Your task to perform on an android device: choose inbox layout in the gmail app Image 0: 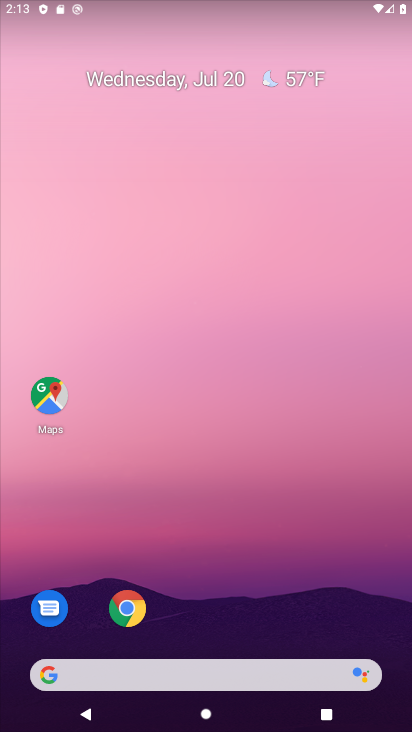
Step 0: drag from (221, 636) to (411, 6)
Your task to perform on an android device: choose inbox layout in the gmail app Image 1: 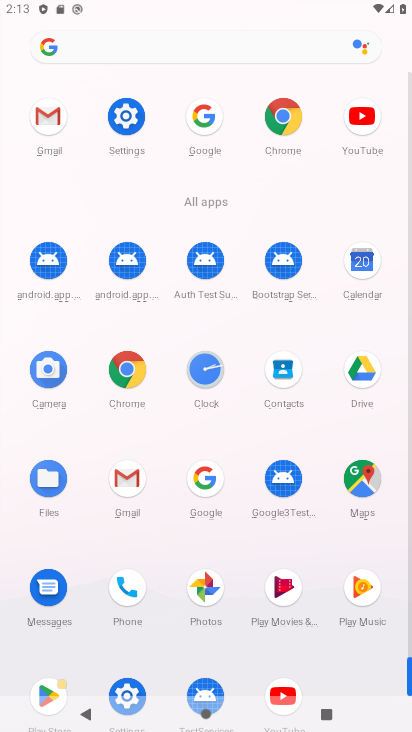
Step 1: click (128, 478)
Your task to perform on an android device: choose inbox layout in the gmail app Image 2: 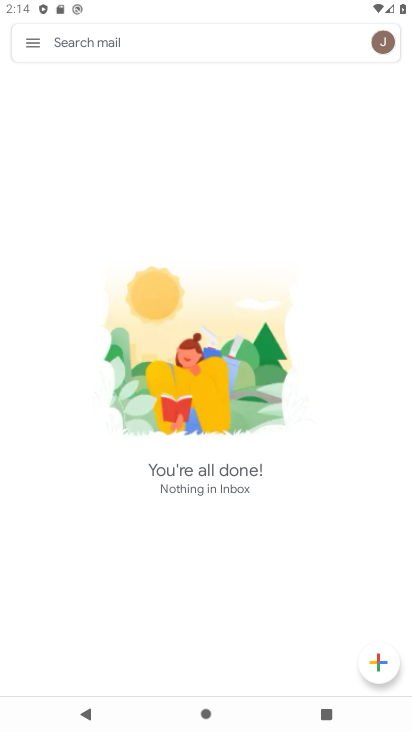
Step 2: click (29, 38)
Your task to perform on an android device: choose inbox layout in the gmail app Image 3: 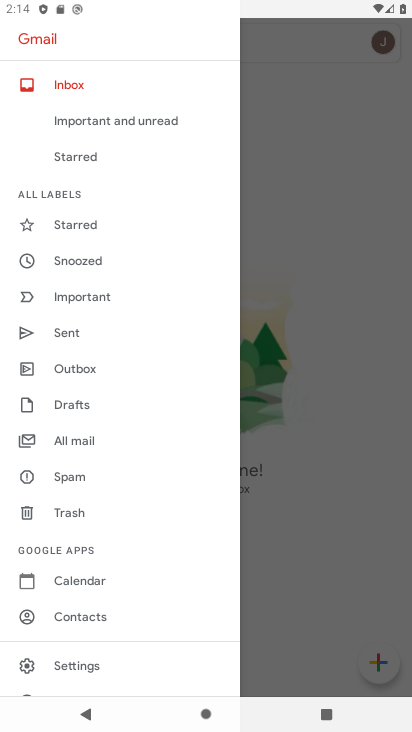
Step 3: drag from (127, 546) to (138, 27)
Your task to perform on an android device: choose inbox layout in the gmail app Image 4: 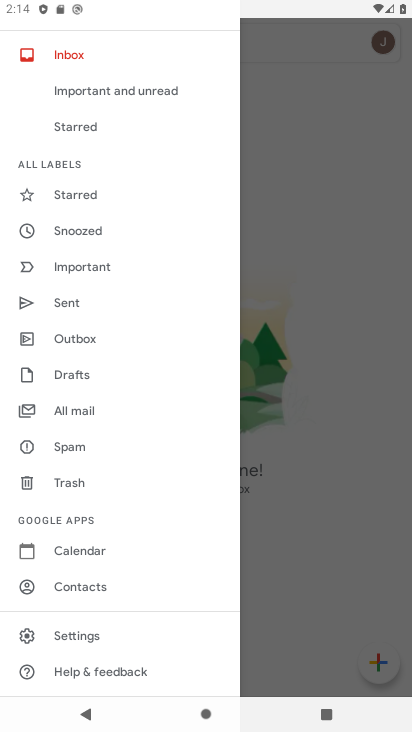
Step 4: click (104, 635)
Your task to perform on an android device: choose inbox layout in the gmail app Image 5: 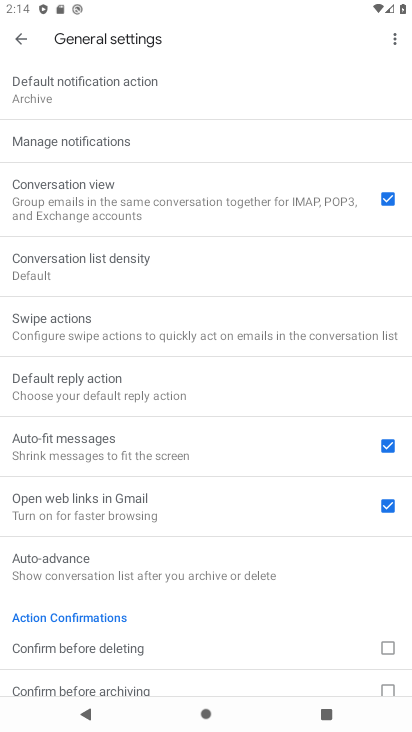
Step 5: click (8, 52)
Your task to perform on an android device: choose inbox layout in the gmail app Image 6: 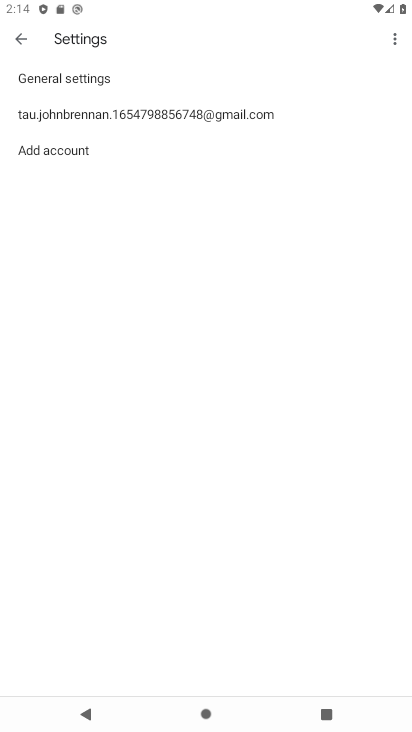
Step 6: click (66, 118)
Your task to perform on an android device: choose inbox layout in the gmail app Image 7: 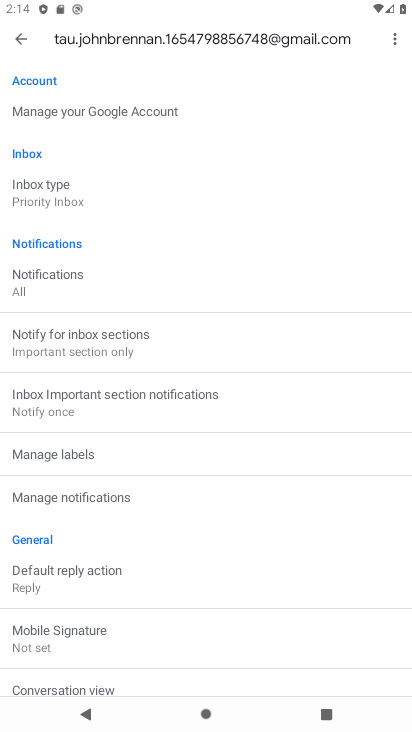
Step 7: click (90, 187)
Your task to perform on an android device: choose inbox layout in the gmail app Image 8: 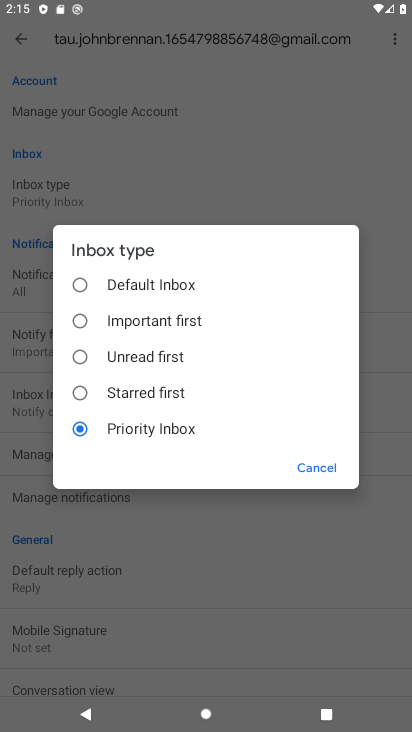
Step 8: click (78, 284)
Your task to perform on an android device: choose inbox layout in the gmail app Image 9: 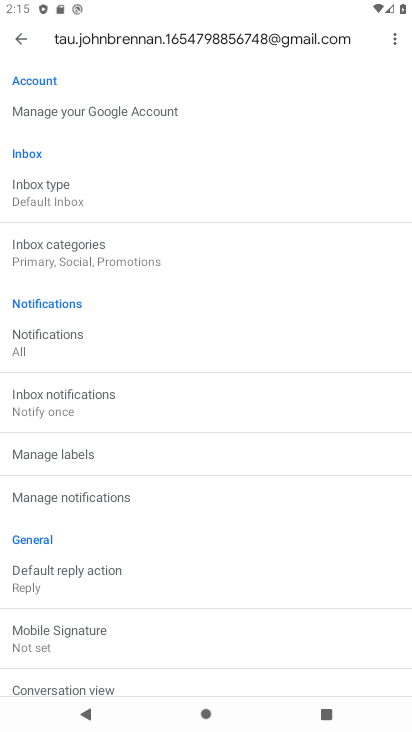
Step 9: task complete